Your task to perform on an android device: move a message to another label in the gmail app Image 0: 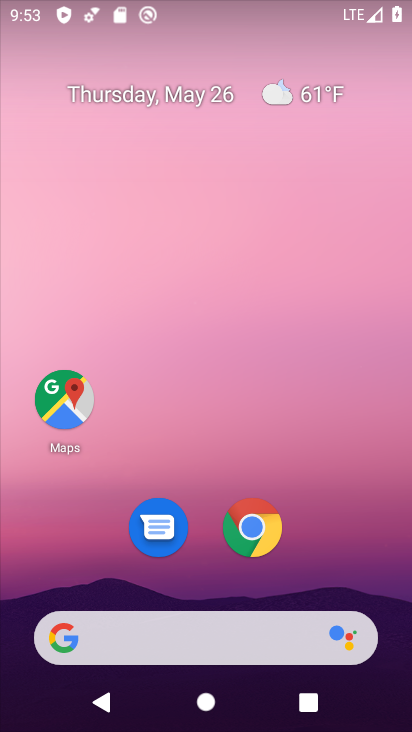
Step 0: drag from (220, 582) to (252, 77)
Your task to perform on an android device: move a message to another label in the gmail app Image 1: 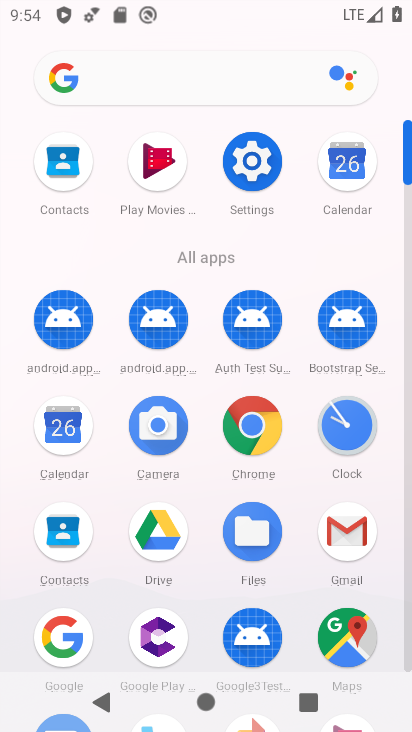
Step 1: click (347, 517)
Your task to perform on an android device: move a message to another label in the gmail app Image 2: 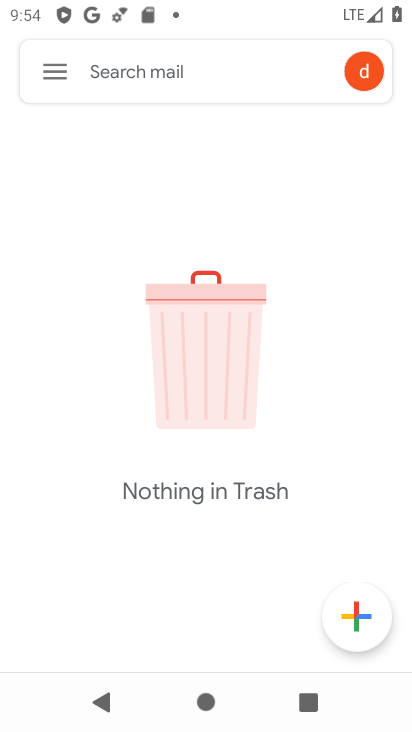
Step 2: click (44, 67)
Your task to perform on an android device: move a message to another label in the gmail app Image 3: 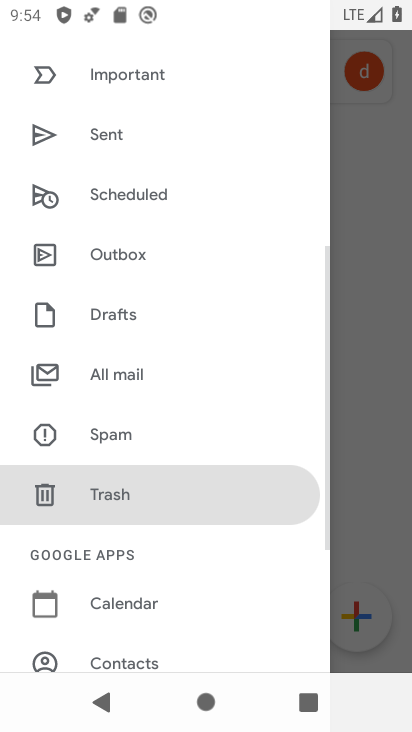
Step 3: click (107, 377)
Your task to perform on an android device: move a message to another label in the gmail app Image 4: 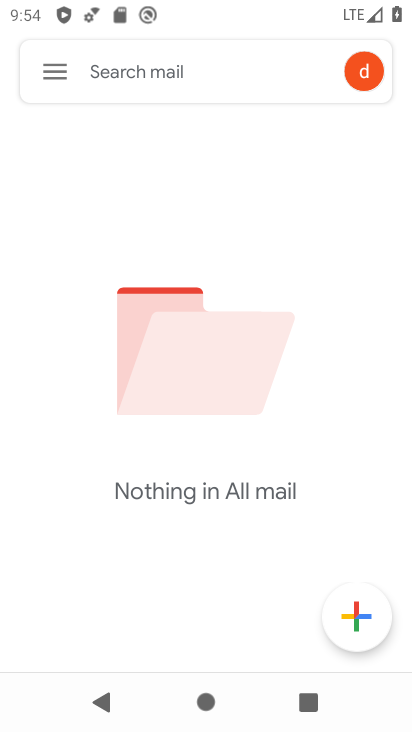
Step 4: task complete